Your task to perform on an android device: Go to settings Image 0: 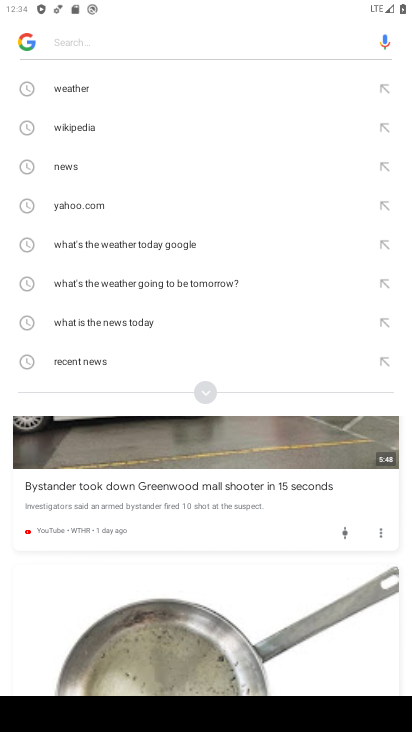
Step 0: press home button
Your task to perform on an android device: Go to settings Image 1: 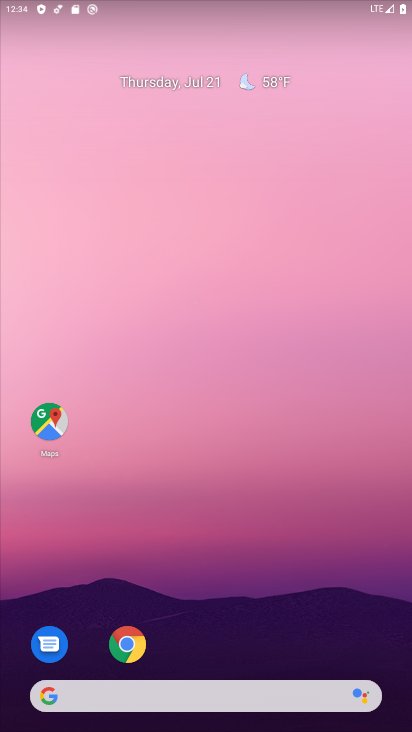
Step 1: drag from (323, 636) to (350, 95)
Your task to perform on an android device: Go to settings Image 2: 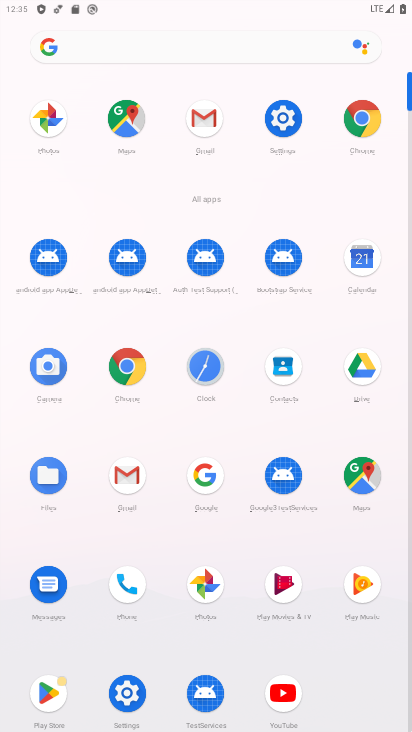
Step 2: click (285, 124)
Your task to perform on an android device: Go to settings Image 3: 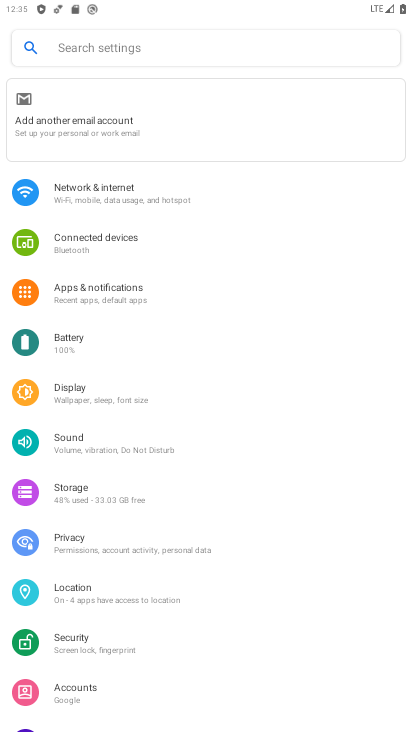
Step 3: task complete